Your task to perform on an android device: turn on priority inbox in the gmail app Image 0: 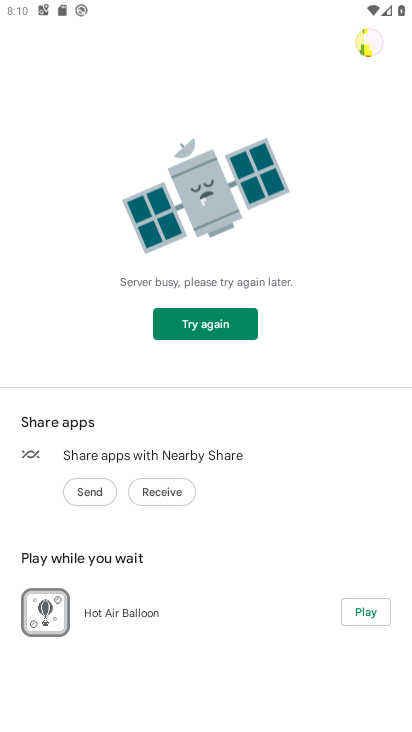
Step 0: press home button
Your task to perform on an android device: turn on priority inbox in the gmail app Image 1: 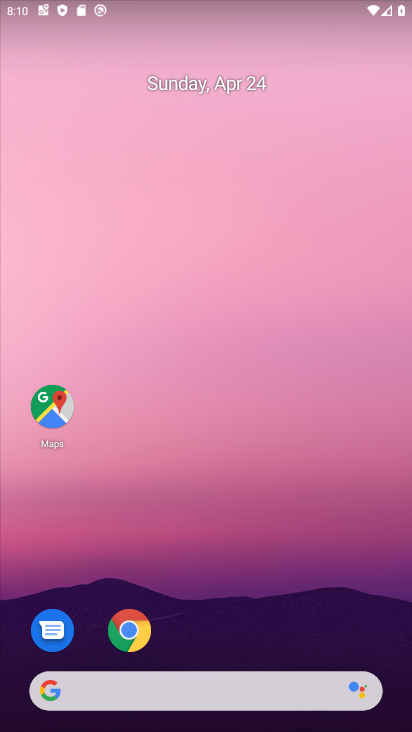
Step 1: drag from (170, 673) to (310, 104)
Your task to perform on an android device: turn on priority inbox in the gmail app Image 2: 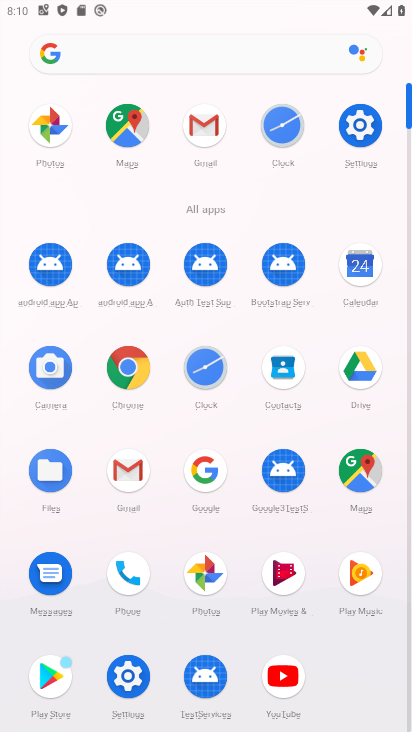
Step 2: click (123, 482)
Your task to perform on an android device: turn on priority inbox in the gmail app Image 3: 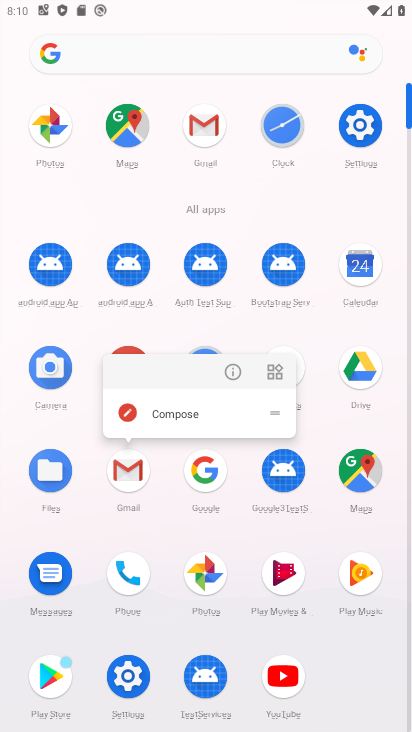
Step 3: click (117, 478)
Your task to perform on an android device: turn on priority inbox in the gmail app Image 4: 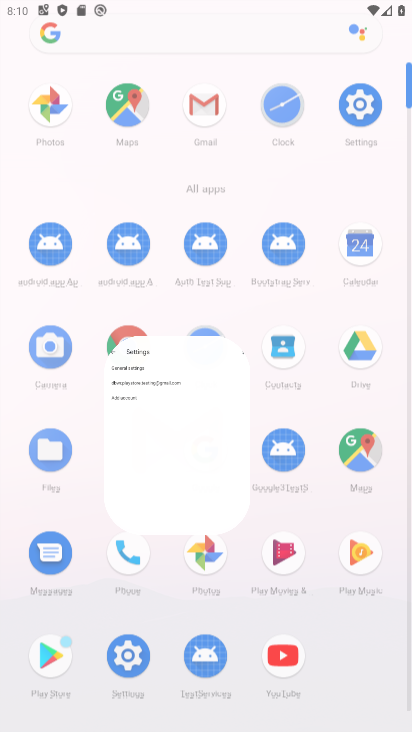
Step 4: click (128, 475)
Your task to perform on an android device: turn on priority inbox in the gmail app Image 5: 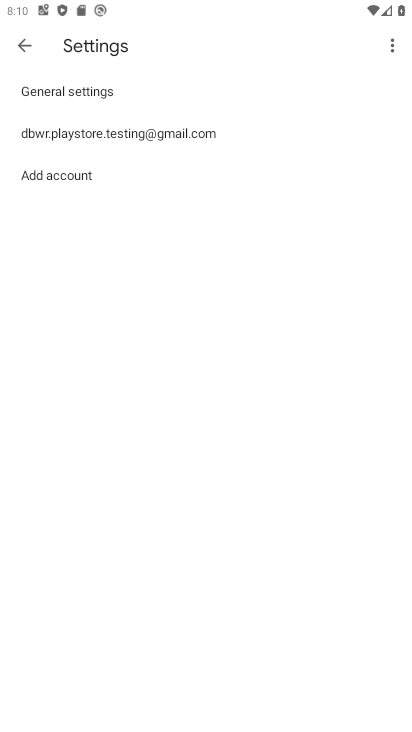
Step 5: click (227, 136)
Your task to perform on an android device: turn on priority inbox in the gmail app Image 6: 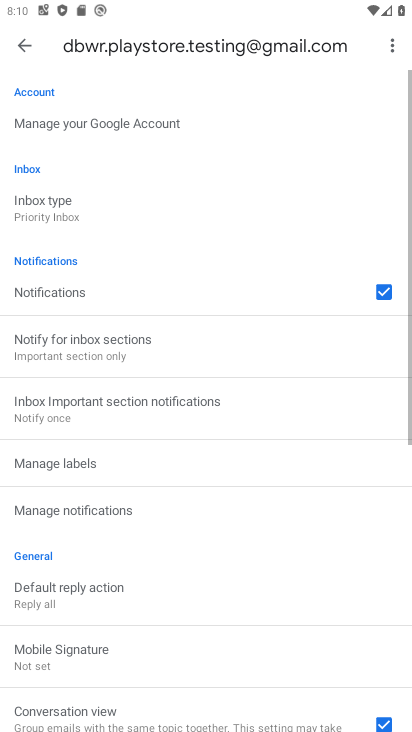
Step 6: task complete